Your task to perform on an android device: read, delete, or share a saved page in the chrome app Image 0: 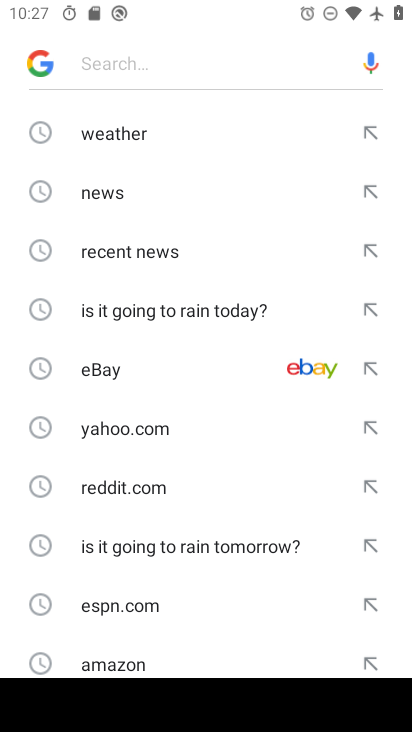
Step 0: press home button
Your task to perform on an android device: read, delete, or share a saved page in the chrome app Image 1: 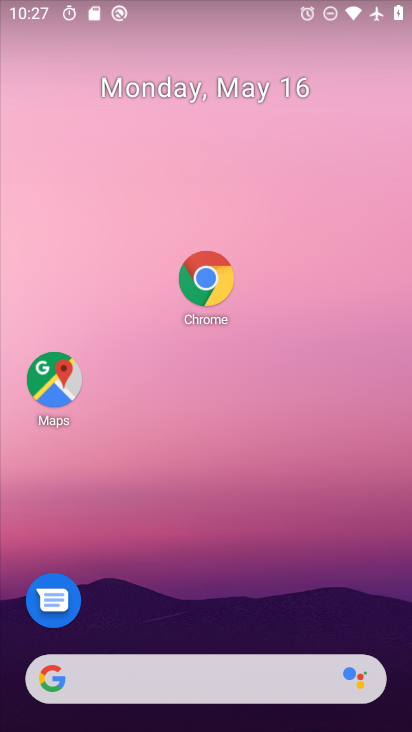
Step 1: drag from (181, 671) to (350, 109)
Your task to perform on an android device: read, delete, or share a saved page in the chrome app Image 2: 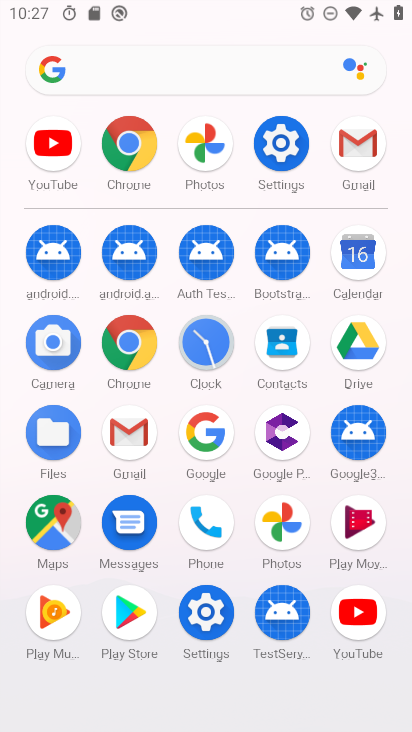
Step 2: click (133, 349)
Your task to perform on an android device: read, delete, or share a saved page in the chrome app Image 3: 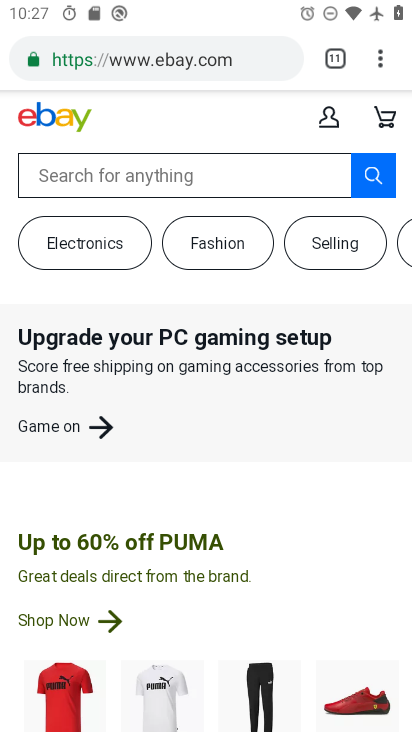
Step 3: drag from (382, 70) to (222, 389)
Your task to perform on an android device: read, delete, or share a saved page in the chrome app Image 4: 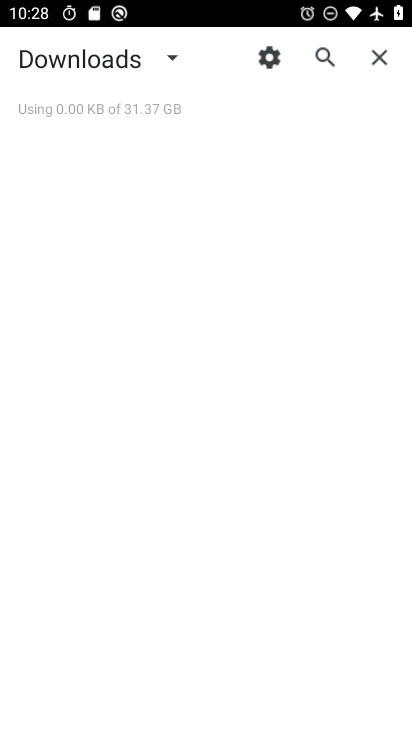
Step 4: click (139, 61)
Your task to perform on an android device: read, delete, or share a saved page in the chrome app Image 5: 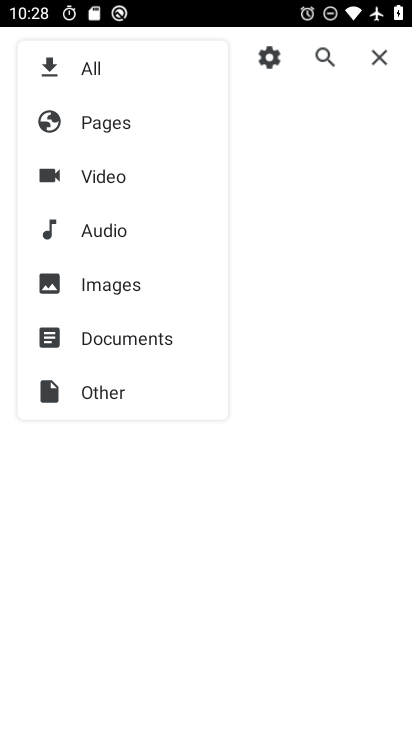
Step 5: click (114, 128)
Your task to perform on an android device: read, delete, or share a saved page in the chrome app Image 6: 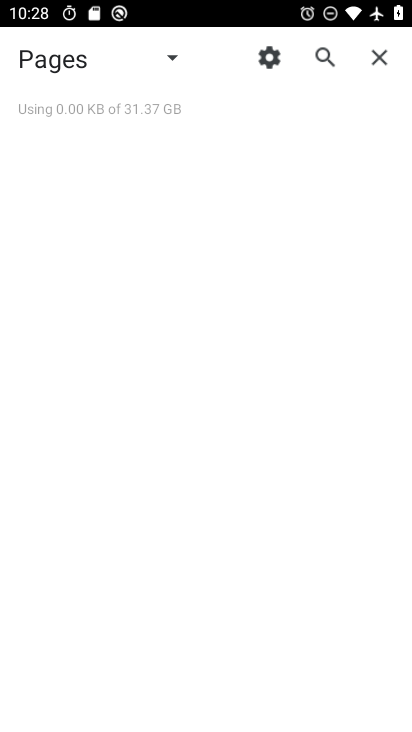
Step 6: task complete